Your task to perform on an android device: toggle data saver in the chrome app Image 0: 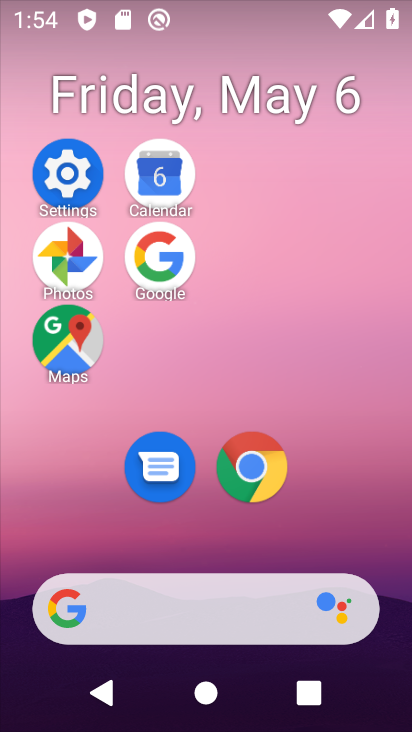
Step 0: click (241, 474)
Your task to perform on an android device: toggle data saver in the chrome app Image 1: 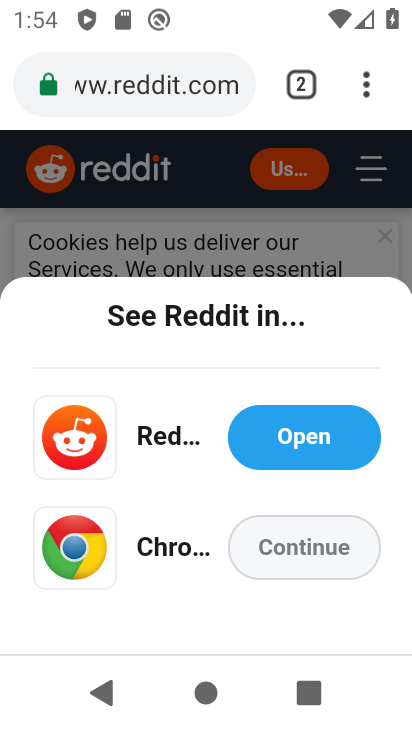
Step 1: click (367, 87)
Your task to perform on an android device: toggle data saver in the chrome app Image 2: 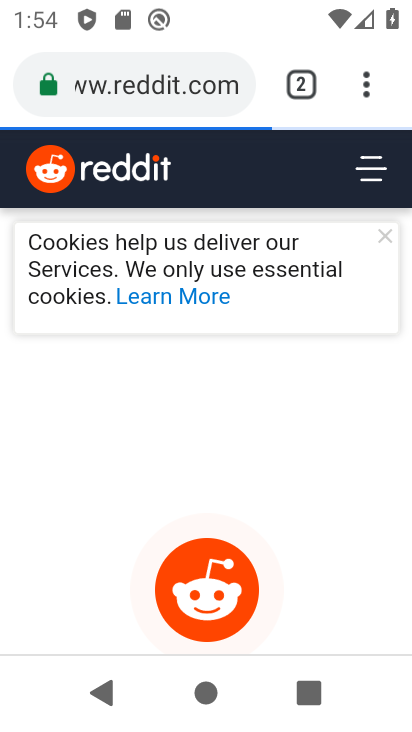
Step 2: click (379, 87)
Your task to perform on an android device: toggle data saver in the chrome app Image 3: 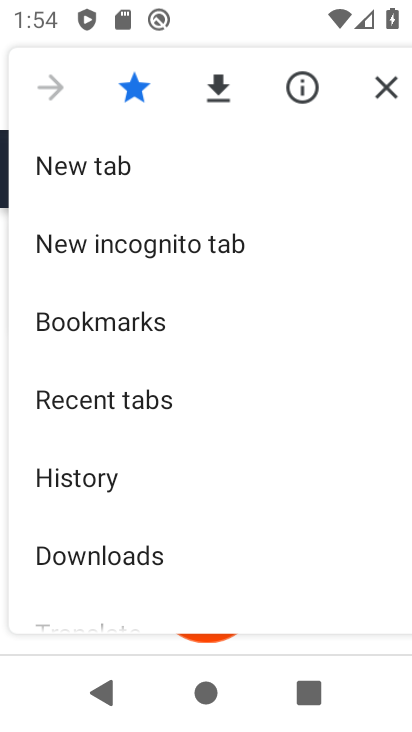
Step 3: drag from (196, 511) to (164, 127)
Your task to perform on an android device: toggle data saver in the chrome app Image 4: 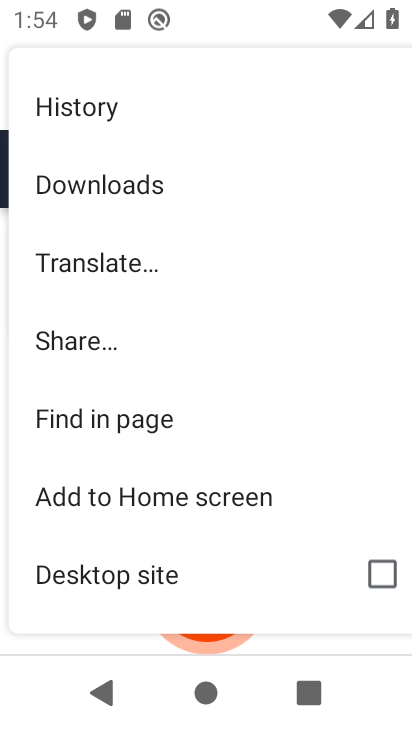
Step 4: drag from (183, 485) to (148, 154)
Your task to perform on an android device: toggle data saver in the chrome app Image 5: 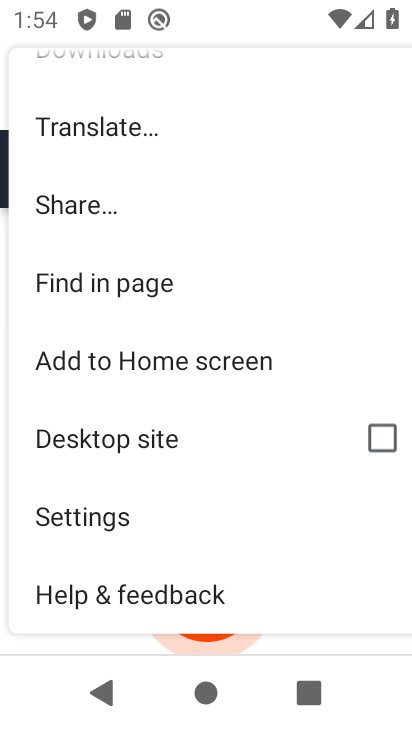
Step 5: click (166, 533)
Your task to perform on an android device: toggle data saver in the chrome app Image 6: 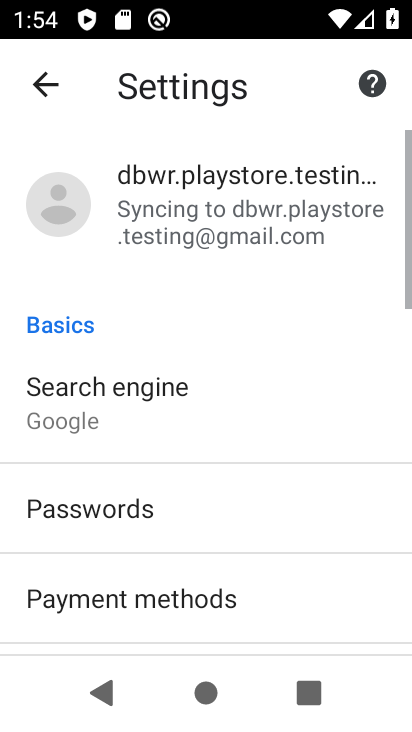
Step 6: drag from (164, 521) to (159, 158)
Your task to perform on an android device: toggle data saver in the chrome app Image 7: 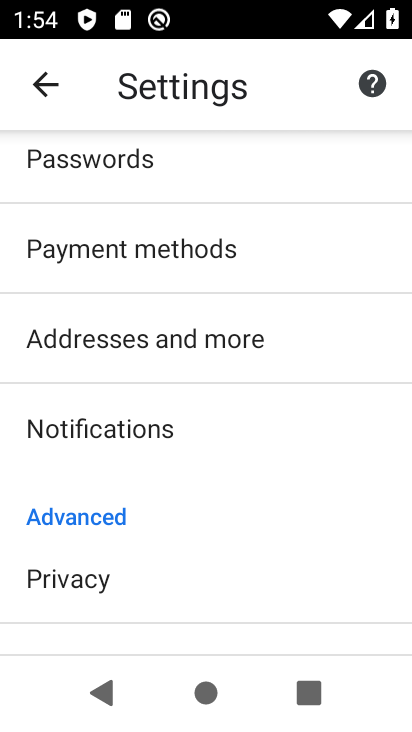
Step 7: drag from (190, 543) to (172, 192)
Your task to perform on an android device: toggle data saver in the chrome app Image 8: 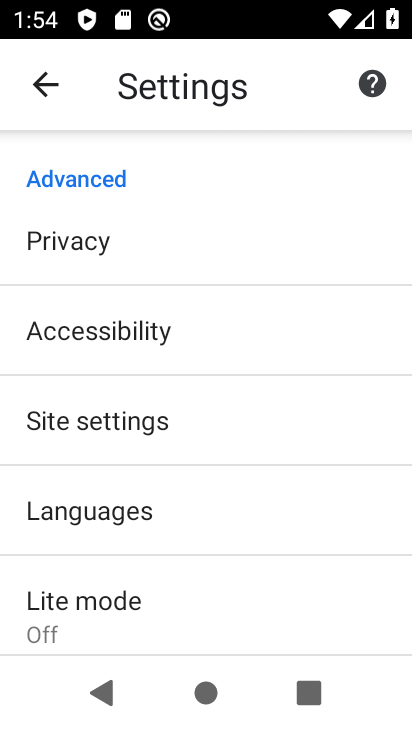
Step 8: click (148, 585)
Your task to perform on an android device: toggle data saver in the chrome app Image 9: 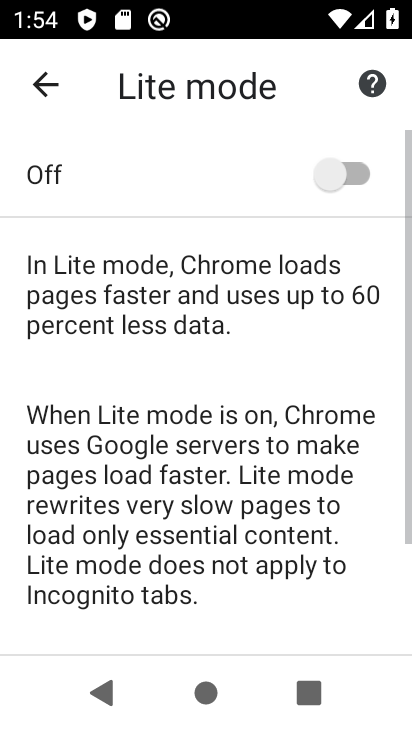
Step 9: click (350, 172)
Your task to perform on an android device: toggle data saver in the chrome app Image 10: 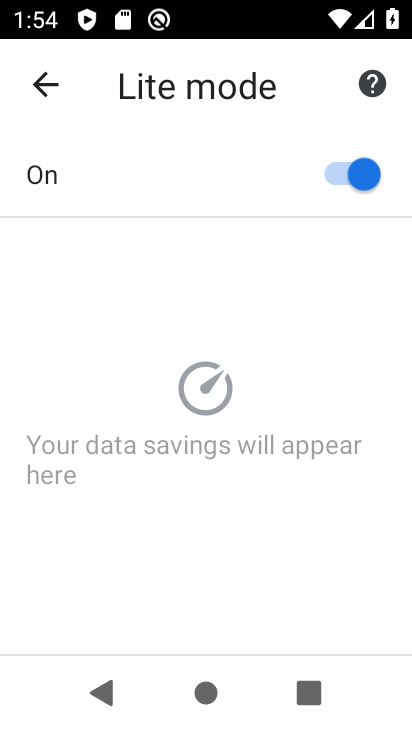
Step 10: task complete